Your task to perform on an android device: Search for sushi restaurants on Maps Image 0: 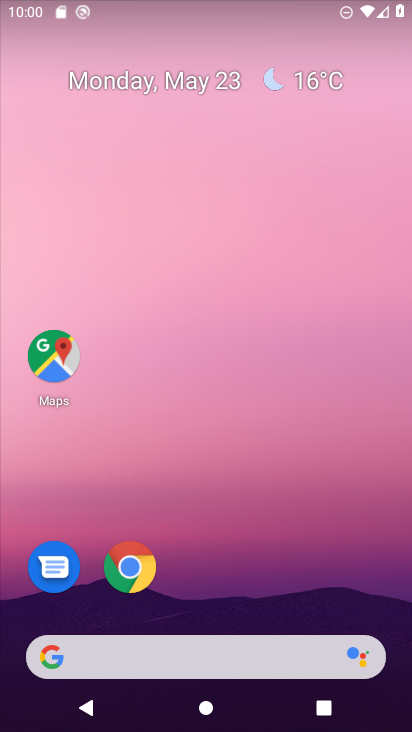
Step 0: click (261, 97)
Your task to perform on an android device: Search for sushi restaurants on Maps Image 1: 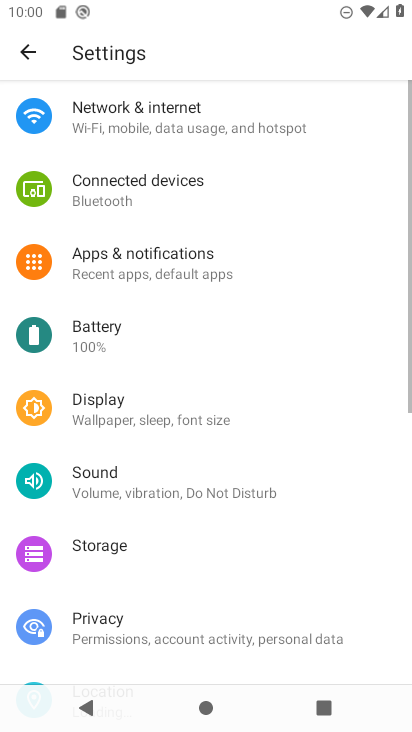
Step 1: drag from (203, 573) to (239, 142)
Your task to perform on an android device: Search for sushi restaurants on Maps Image 2: 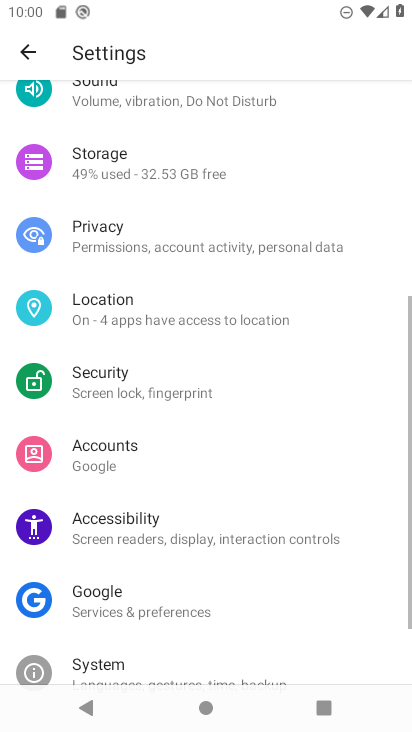
Step 2: press home button
Your task to perform on an android device: Search for sushi restaurants on Maps Image 3: 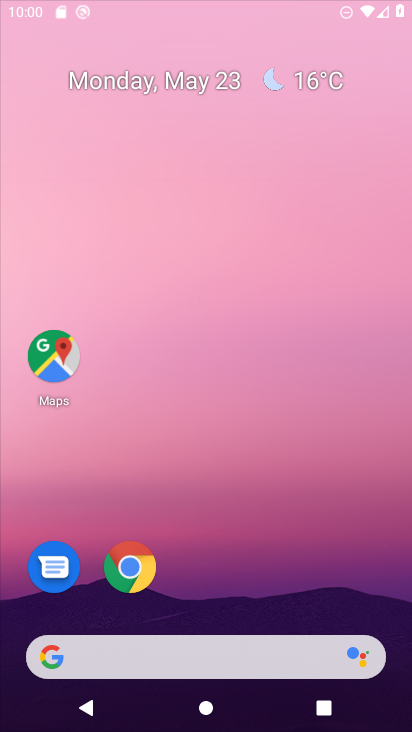
Step 3: drag from (185, 662) to (203, 182)
Your task to perform on an android device: Search for sushi restaurants on Maps Image 4: 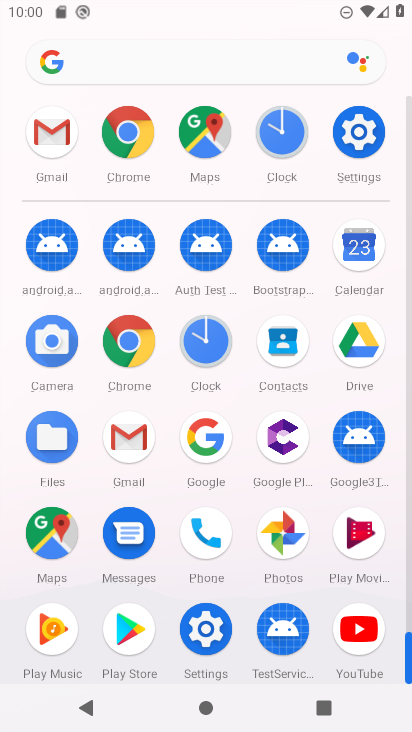
Step 4: click (46, 533)
Your task to perform on an android device: Search for sushi restaurants on Maps Image 5: 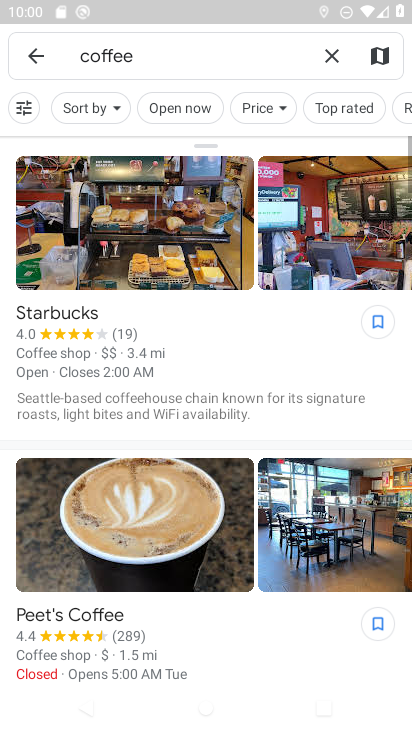
Step 5: click (331, 52)
Your task to perform on an android device: Search for sushi restaurants on Maps Image 6: 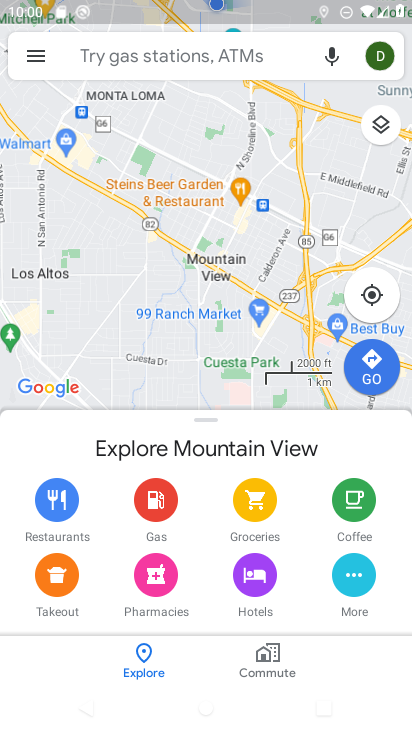
Step 6: click (241, 60)
Your task to perform on an android device: Search for sushi restaurants on Maps Image 7: 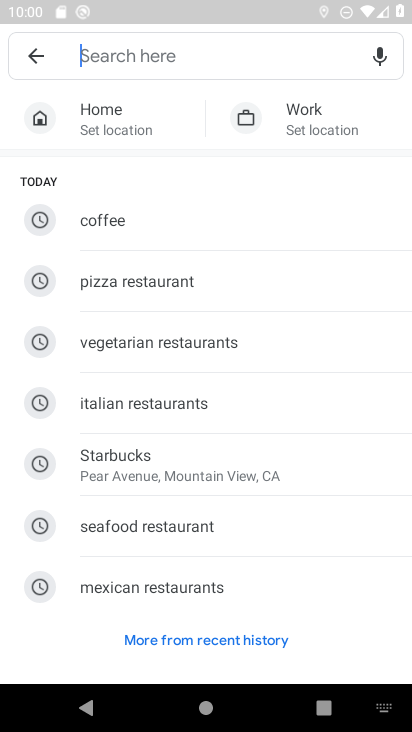
Step 7: drag from (205, 522) to (261, 141)
Your task to perform on an android device: Search for sushi restaurants on Maps Image 8: 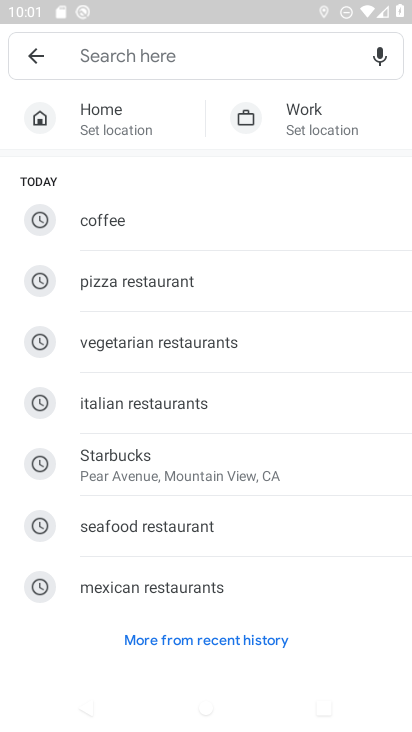
Step 8: drag from (240, 660) to (331, 196)
Your task to perform on an android device: Search for sushi restaurants on Maps Image 9: 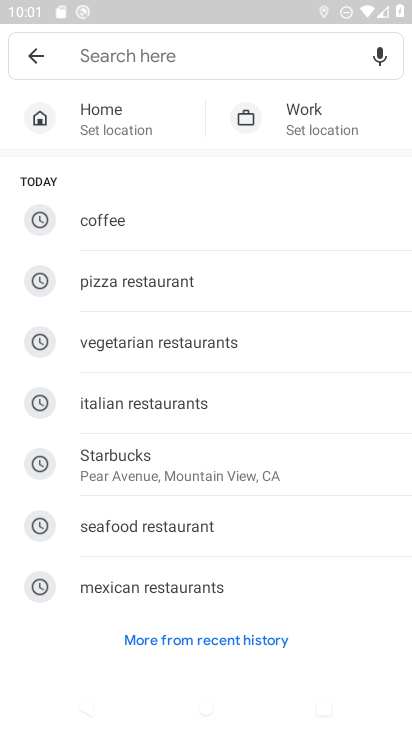
Step 9: drag from (186, 555) to (273, 103)
Your task to perform on an android device: Search for sushi restaurants on Maps Image 10: 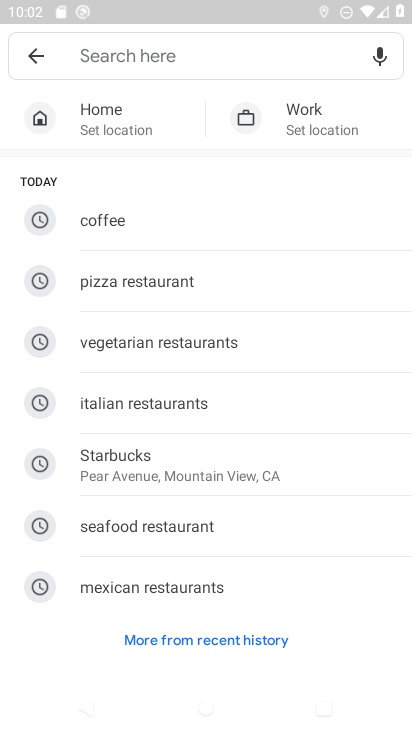
Step 10: drag from (177, 587) to (207, 223)
Your task to perform on an android device: Search for sushi restaurants on Maps Image 11: 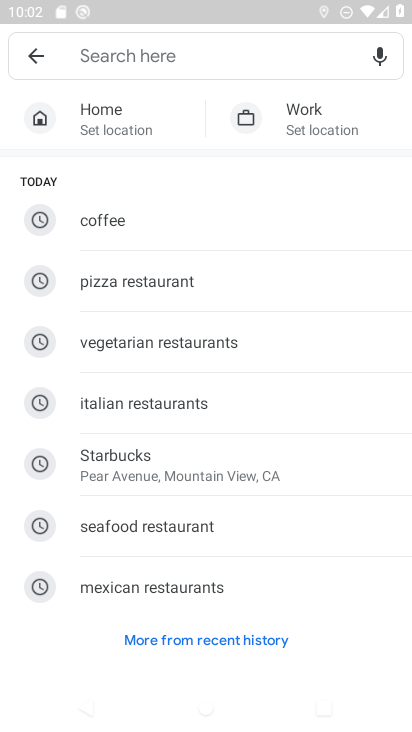
Step 11: click (184, 62)
Your task to perform on an android device: Search for sushi restaurants on Maps Image 12: 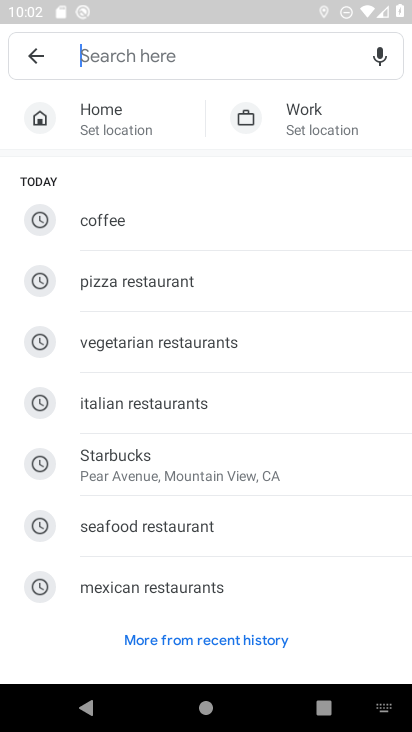
Step 12: type "sushi restaurants "
Your task to perform on an android device: Search for sushi restaurants on Maps Image 13: 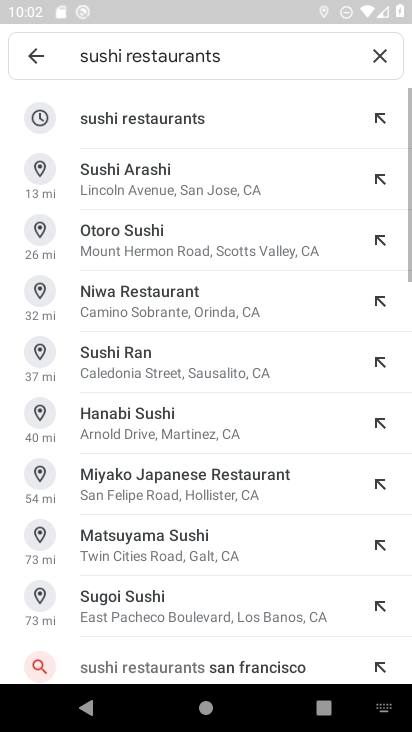
Step 13: click (121, 104)
Your task to perform on an android device: Search for sushi restaurants on Maps Image 14: 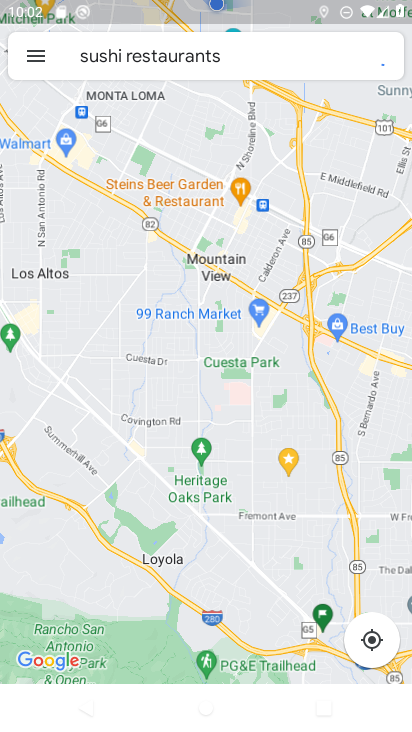
Step 14: task complete